Your task to perform on an android device: Open eBay Image 0: 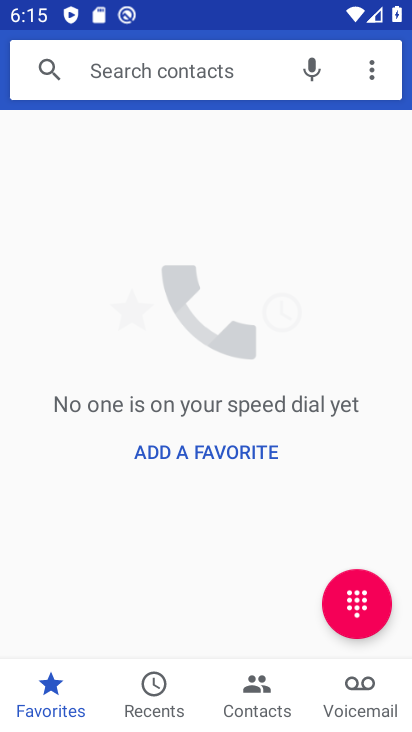
Step 0: press back button
Your task to perform on an android device: Open eBay Image 1: 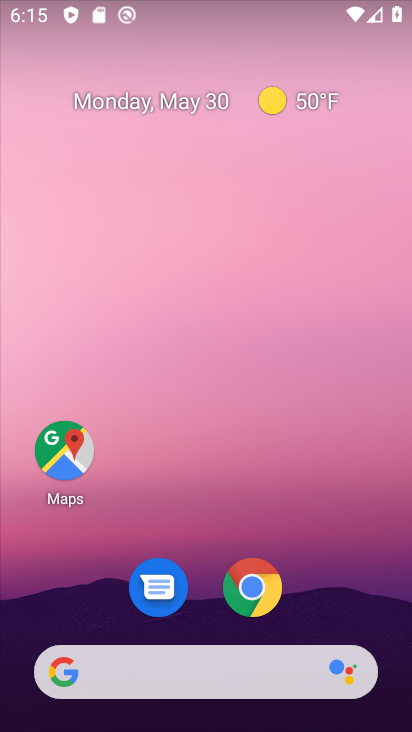
Step 1: drag from (304, 601) to (164, 10)
Your task to perform on an android device: Open eBay Image 2: 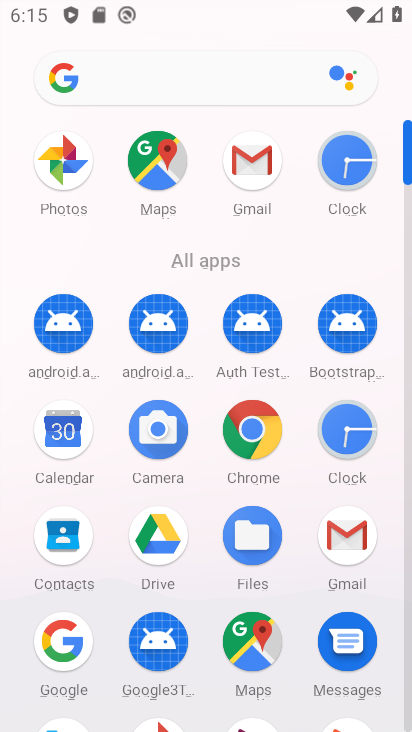
Step 2: click (252, 423)
Your task to perform on an android device: Open eBay Image 3: 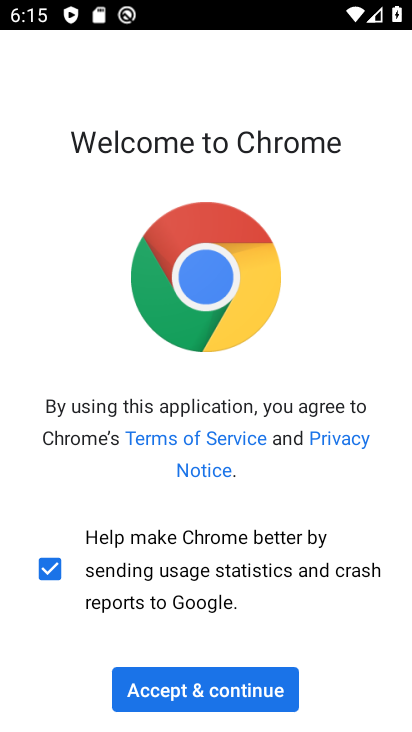
Step 3: click (198, 675)
Your task to perform on an android device: Open eBay Image 4: 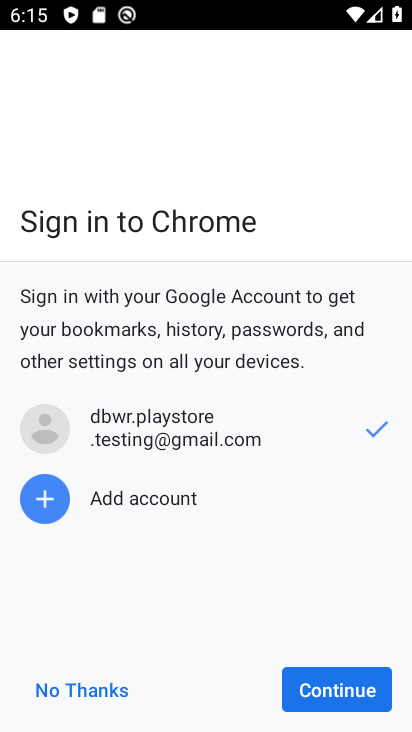
Step 4: click (327, 686)
Your task to perform on an android device: Open eBay Image 5: 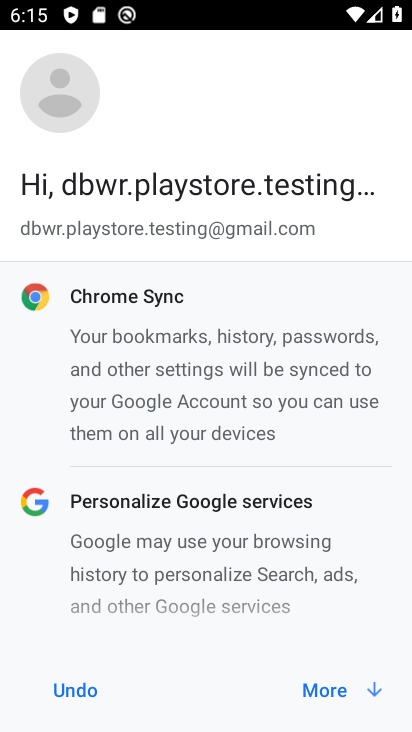
Step 5: click (317, 687)
Your task to perform on an android device: Open eBay Image 6: 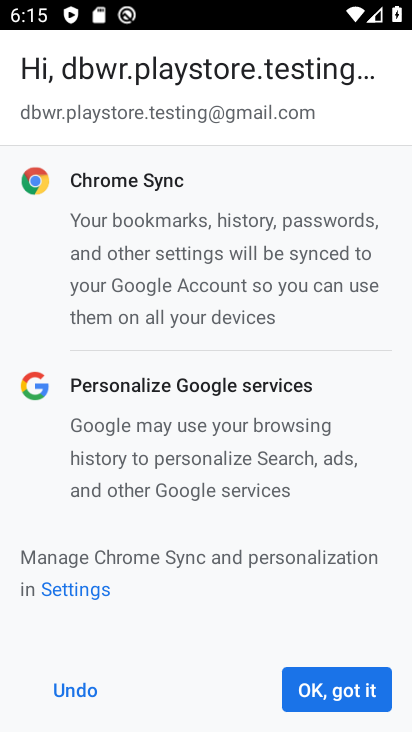
Step 6: click (338, 692)
Your task to perform on an android device: Open eBay Image 7: 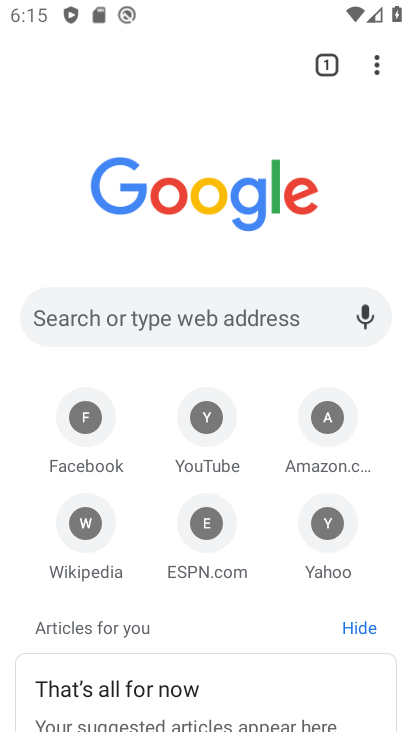
Step 7: click (157, 322)
Your task to perform on an android device: Open eBay Image 8: 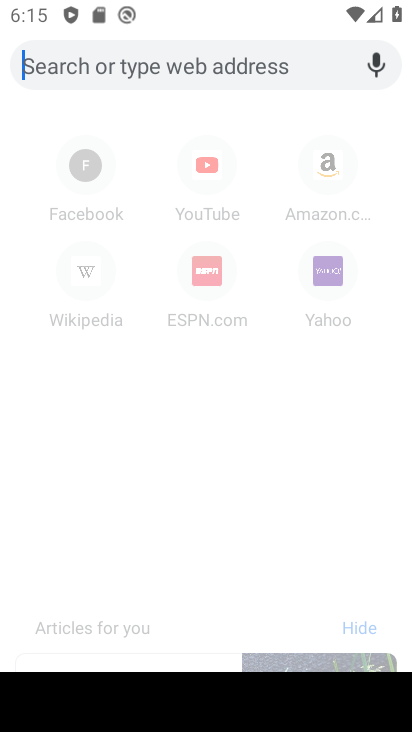
Step 8: type "eBay"
Your task to perform on an android device: Open eBay Image 9: 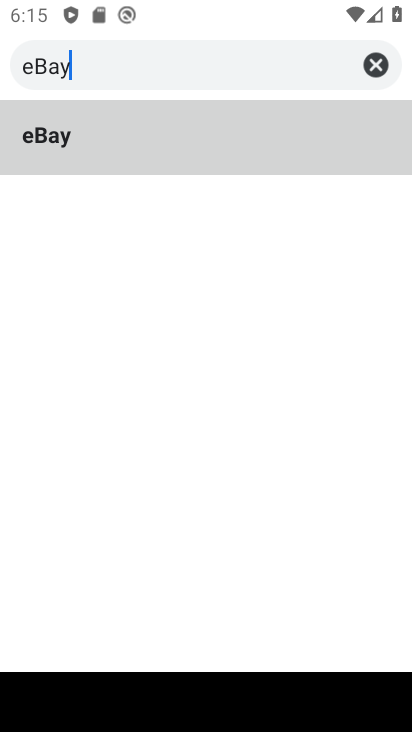
Step 9: type ""
Your task to perform on an android device: Open eBay Image 10: 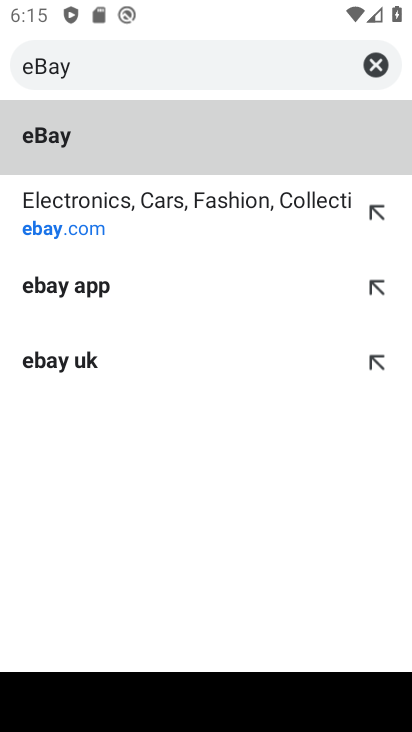
Step 10: click (123, 206)
Your task to perform on an android device: Open eBay Image 11: 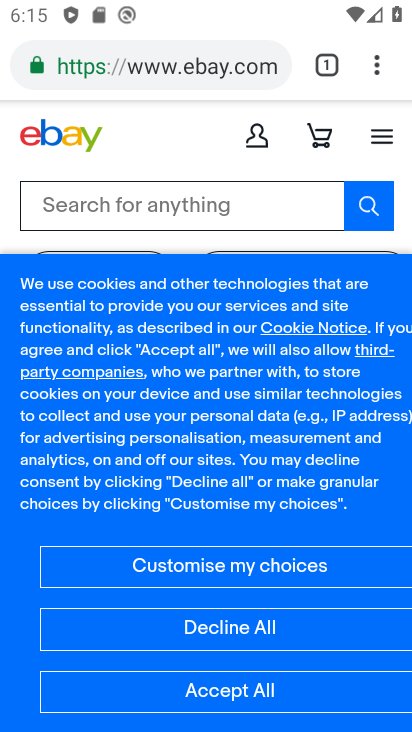
Step 11: task complete